Your task to perform on an android device: Go to display settings Image 0: 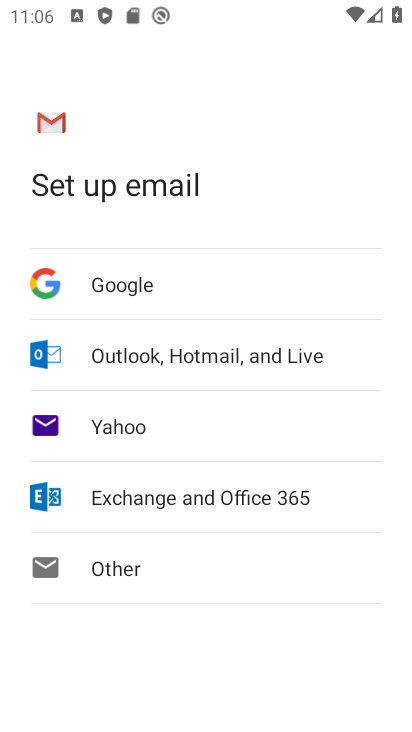
Step 0: press home button
Your task to perform on an android device: Go to display settings Image 1: 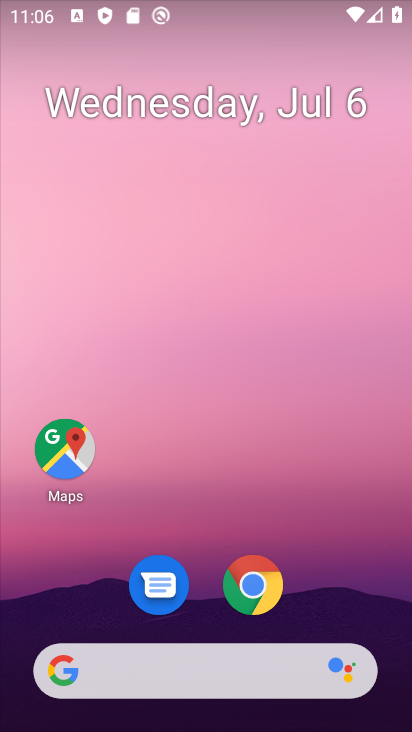
Step 1: drag from (252, 472) to (290, 0)
Your task to perform on an android device: Go to display settings Image 2: 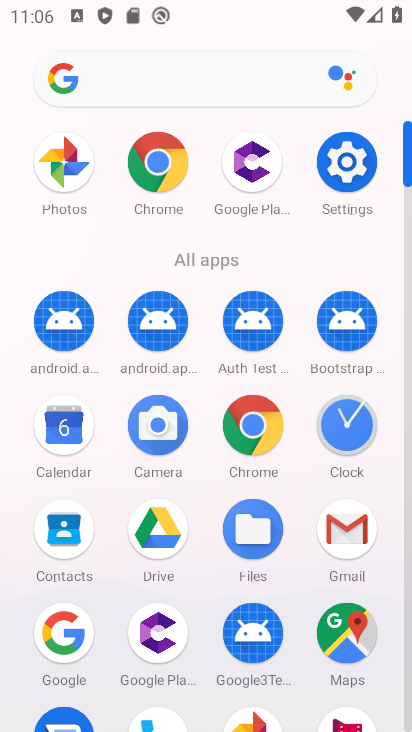
Step 2: click (343, 169)
Your task to perform on an android device: Go to display settings Image 3: 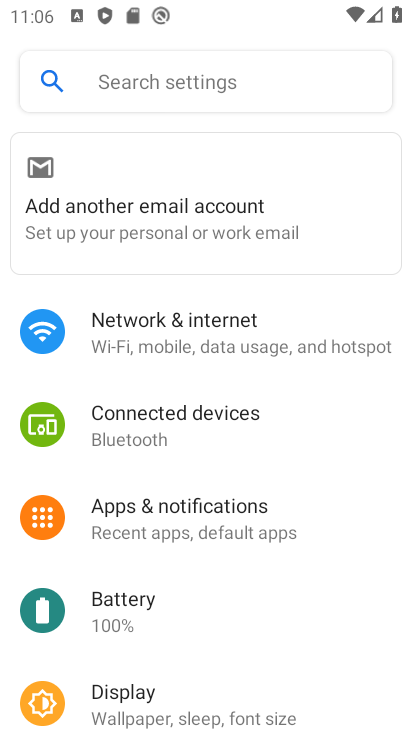
Step 3: click (167, 715)
Your task to perform on an android device: Go to display settings Image 4: 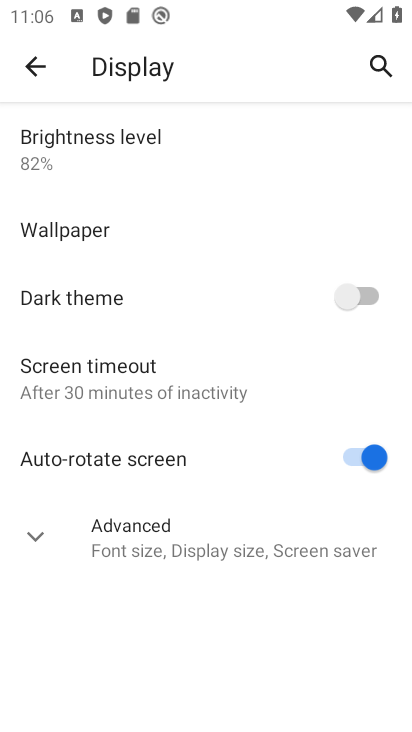
Step 4: click (32, 537)
Your task to perform on an android device: Go to display settings Image 5: 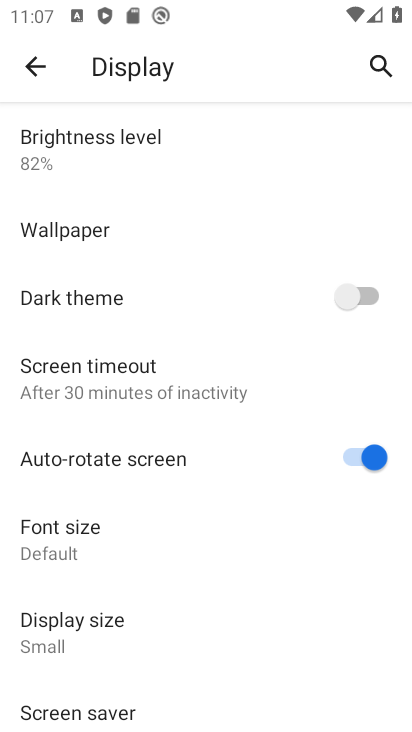
Step 5: task complete